Your task to perform on an android device: turn pop-ups off in chrome Image 0: 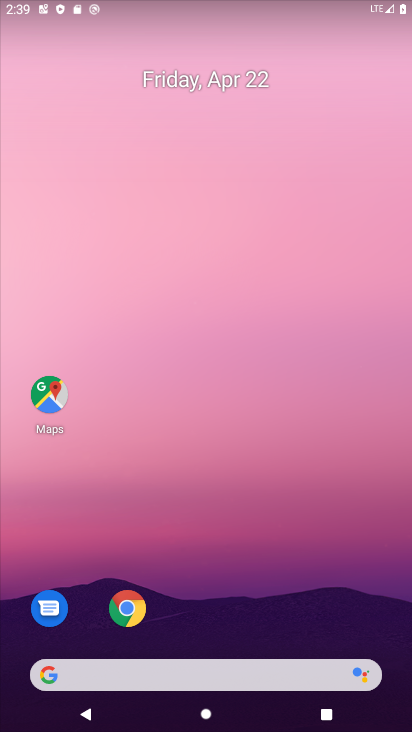
Step 0: drag from (267, 702) to (294, 253)
Your task to perform on an android device: turn pop-ups off in chrome Image 1: 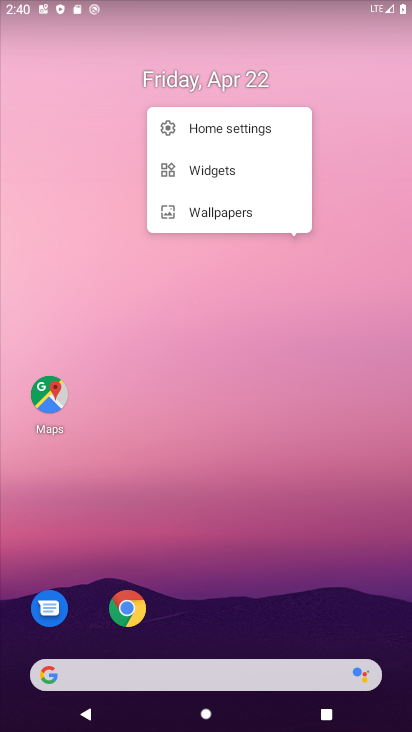
Step 1: click (283, 300)
Your task to perform on an android device: turn pop-ups off in chrome Image 2: 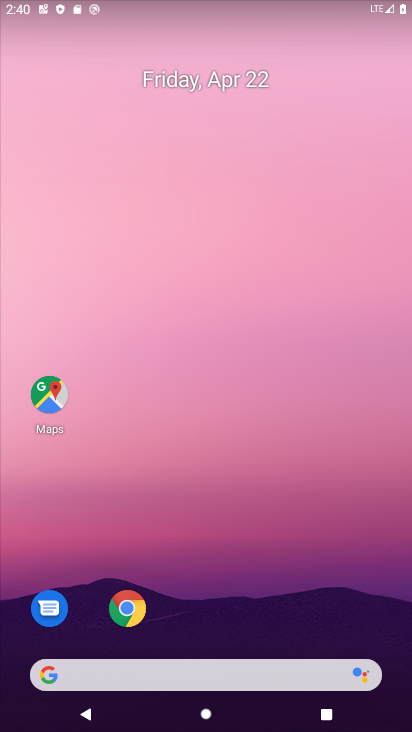
Step 2: drag from (278, 689) to (243, 172)
Your task to perform on an android device: turn pop-ups off in chrome Image 3: 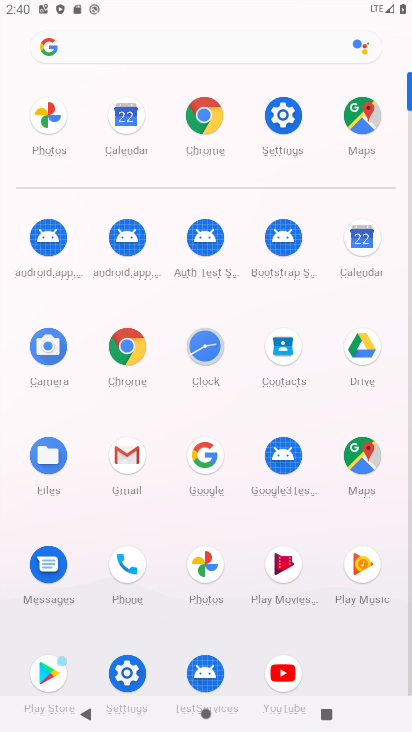
Step 3: click (204, 121)
Your task to perform on an android device: turn pop-ups off in chrome Image 4: 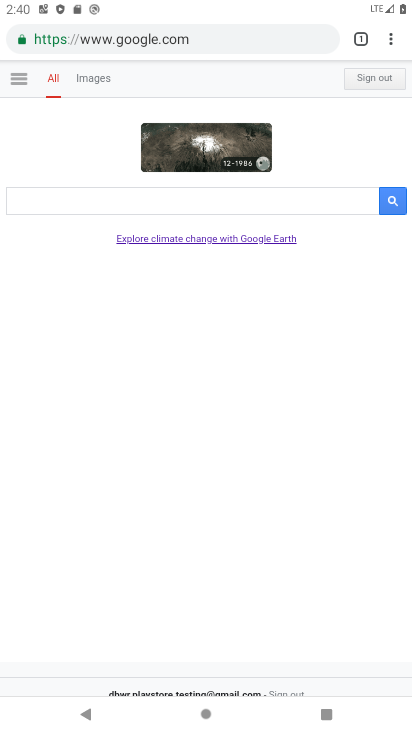
Step 4: click (391, 47)
Your task to perform on an android device: turn pop-ups off in chrome Image 5: 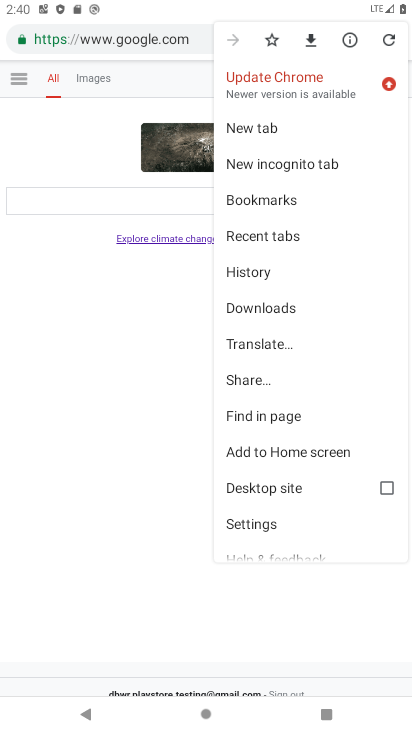
Step 5: click (246, 515)
Your task to perform on an android device: turn pop-ups off in chrome Image 6: 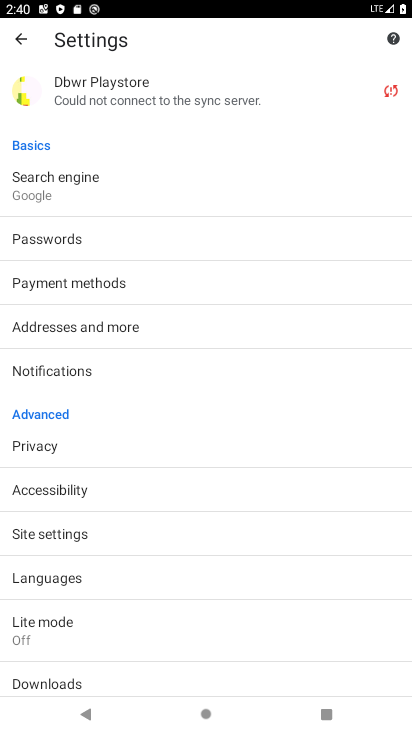
Step 6: click (177, 524)
Your task to perform on an android device: turn pop-ups off in chrome Image 7: 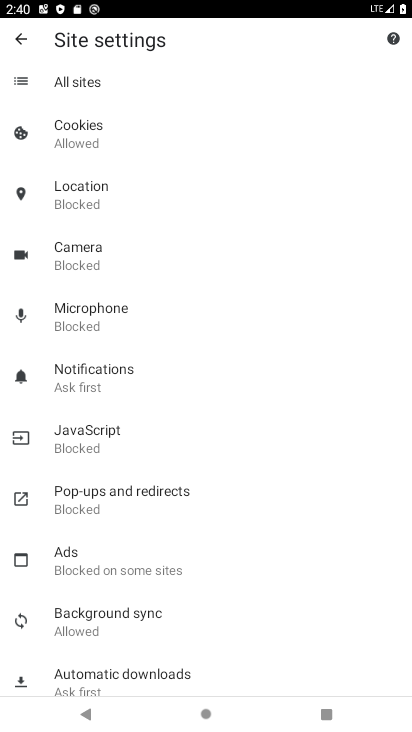
Step 7: click (88, 490)
Your task to perform on an android device: turn pop-ups off in chrome Image 8: 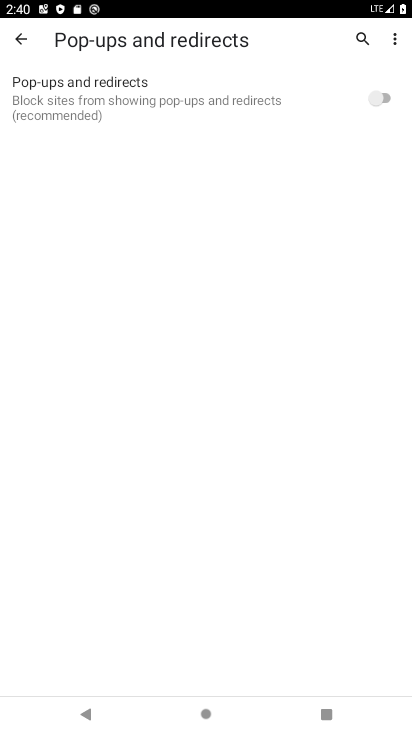
Step 8: click (212, 112)
Your task to perform on an android device: turn pop-ups off in chrome Image 9: 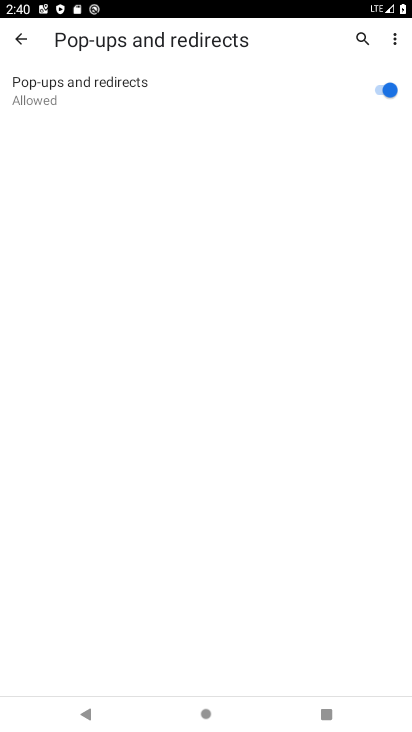
Step 9: click (206, 120)
Your task to perform on an android device: turn pop-ups off in chrome Image 10: 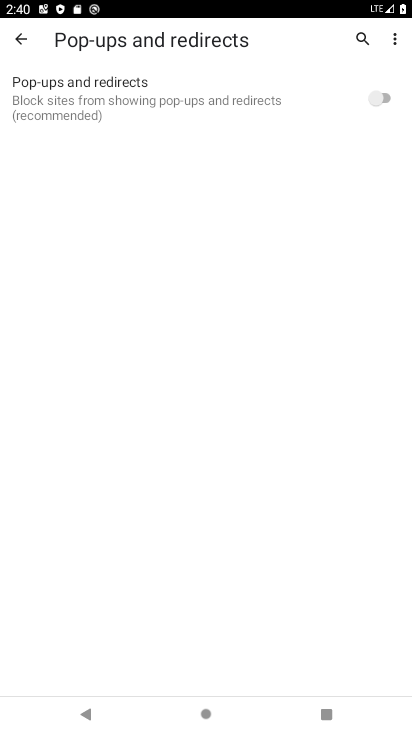
Step 10: task complete